Your task to perform on an android device: Open battery settings Image 0: 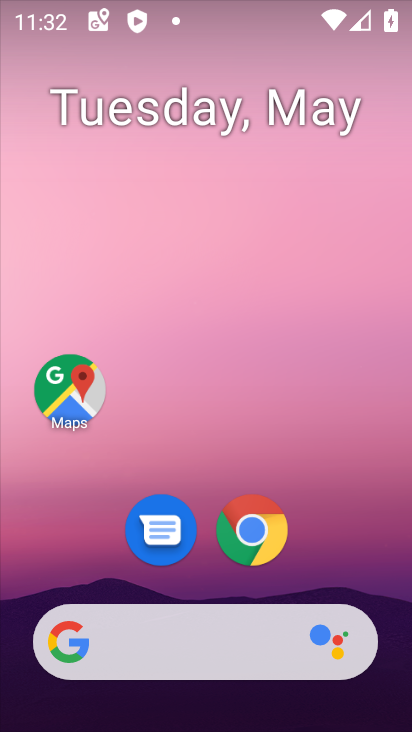
Step 0: drag from (197, 570) to (175, 168)
Your task to perform on an android device: Open battery settings Image 1: 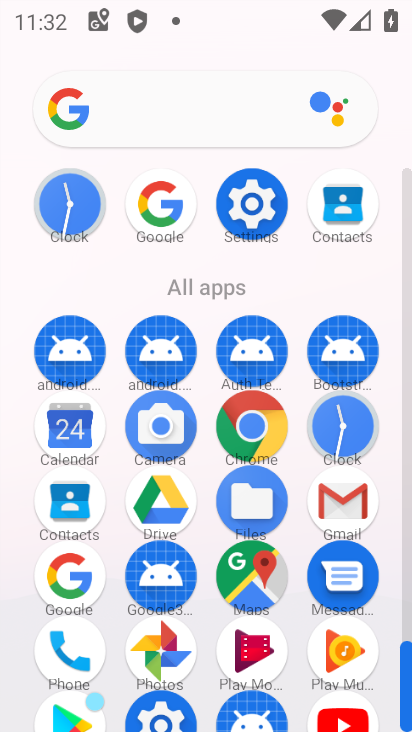
Step 1: click (256, 206)
Your task to perform on an android device: Open battery settings Image 2: 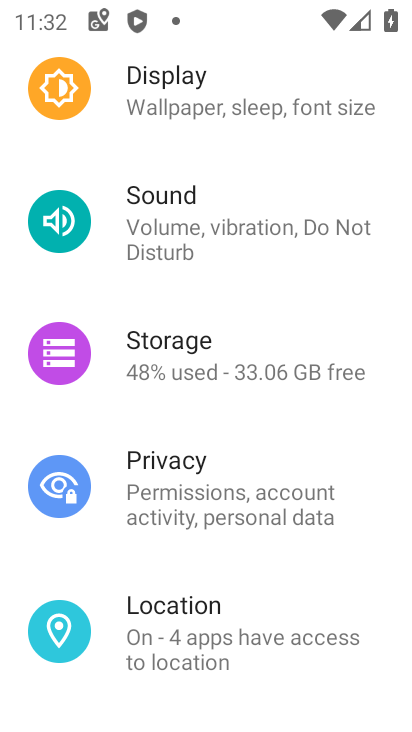
Step 2: click (267, 556)
Your task to perform on an android device: Open battery settings Image 3: 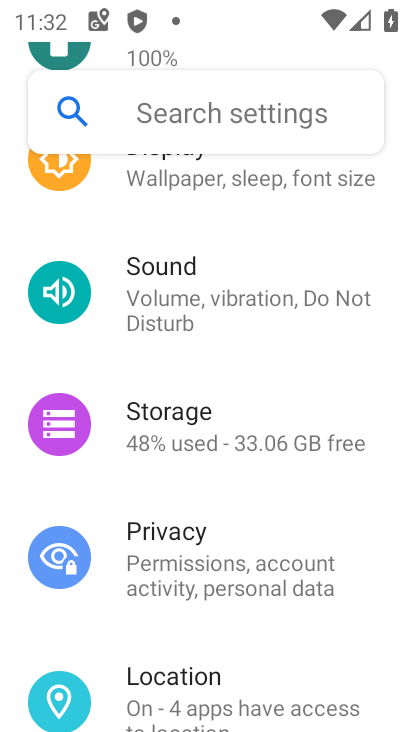
Step 3: drag from (255, 207) to (247, 542)
Your task to perform on an android device: Open battery settings Image 4: 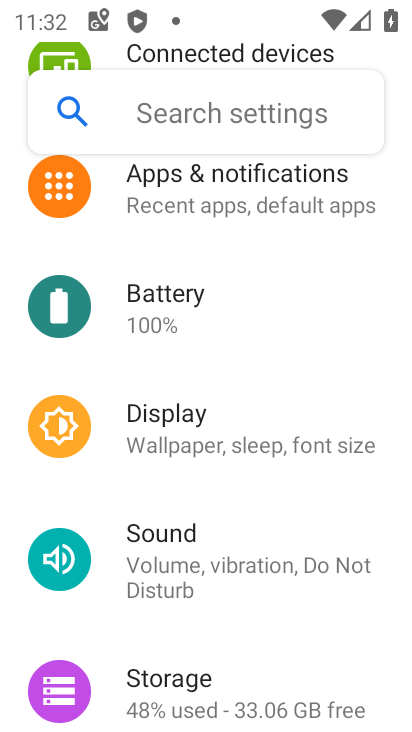
Step 4: click (151, 311)
Your task to perform on an android device: Open battery settings Image 5: 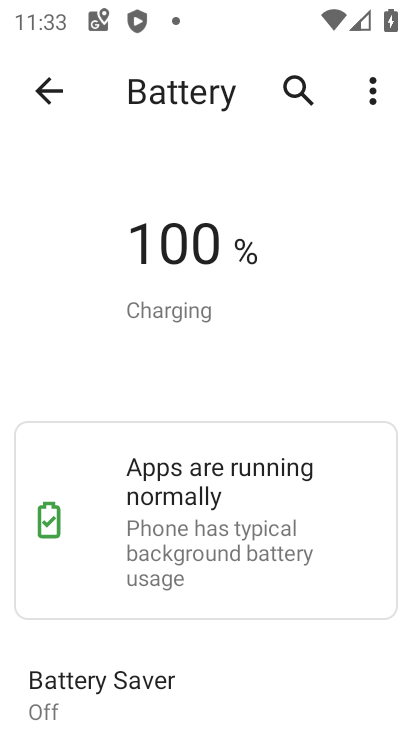
Step 5: task complete